Your task to perform on an android device: turn off picture-in-picture Image 0: 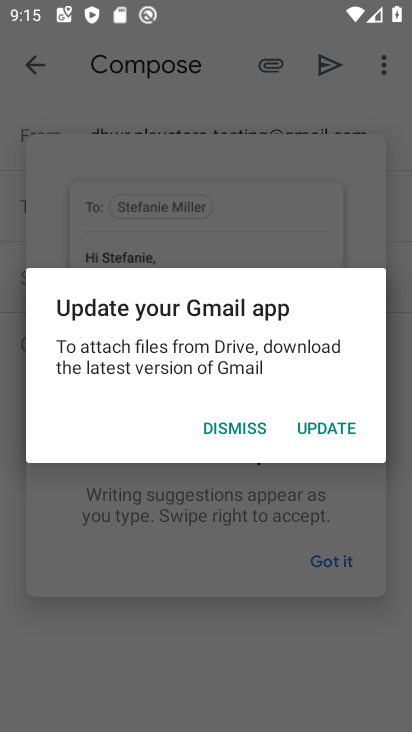
Step 0: press home button
Your task to perform on an android device: turn off picture-in-picture Image 1: 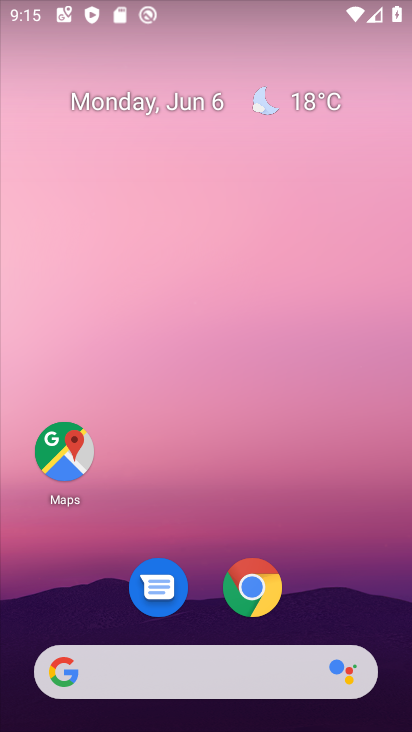
Step 1: click (255, 596)
Your task to perform on an android device: turn off picture-in-picture Image 2: 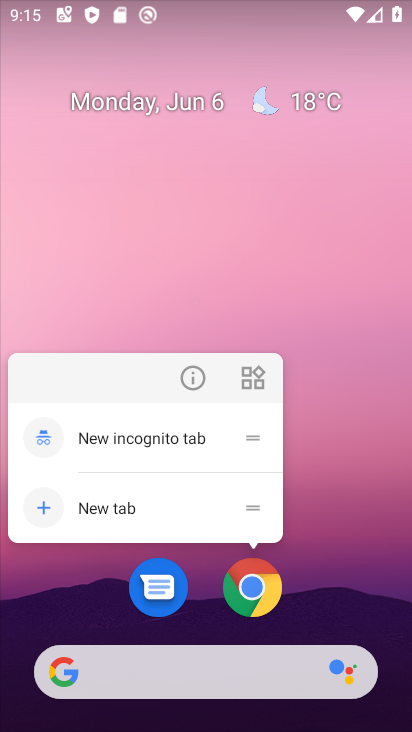
Step 2: click (195, 371)
Your task to perform on an android device: turn off picture-in-picture Image 3: 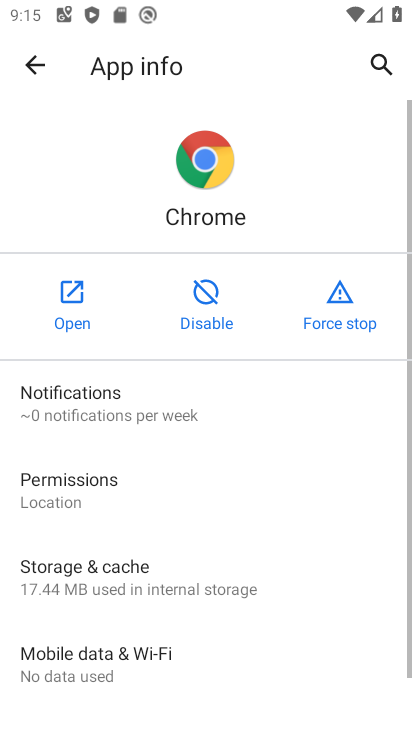
Step 3: drag from (189, 646) to (226, 97)
Your task to perform on an android device: turn off picture-in-picture Image 4: 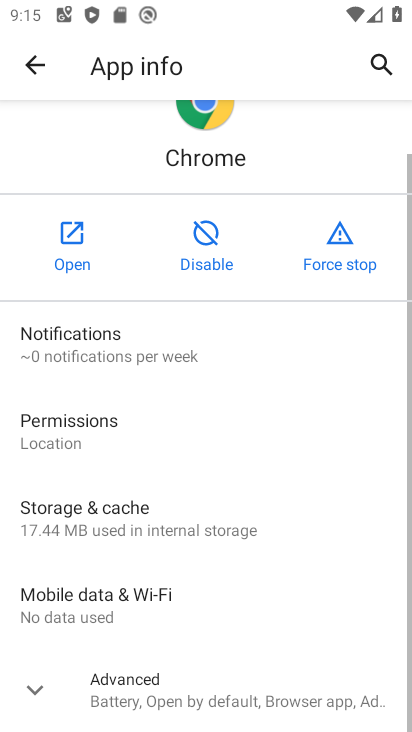
Step 4: click (151, 702)
Your task to perform on an android device: turn off picture-in-picture Image 5: 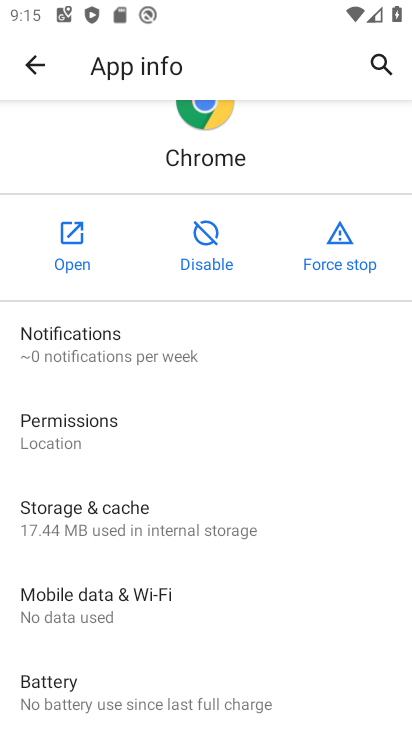
Step 5: drag from (154, 676) to (171, 333)
Your task to perform on an android device: turn off picture-in-picture Image 6: 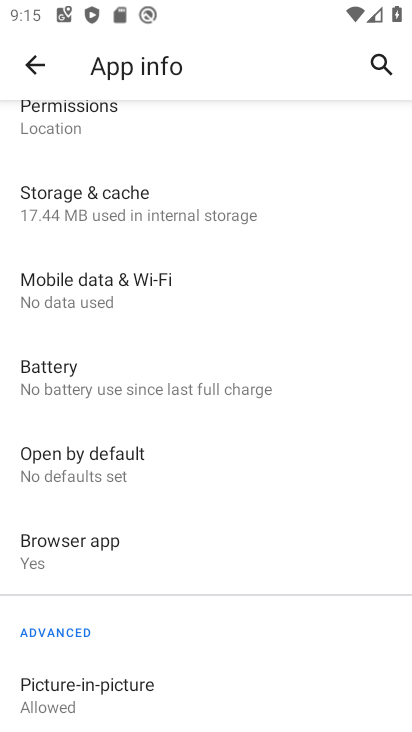
Step 6: click (121, 674)
Your task to perform on an android device: turn off picture-in-picture Image 7: 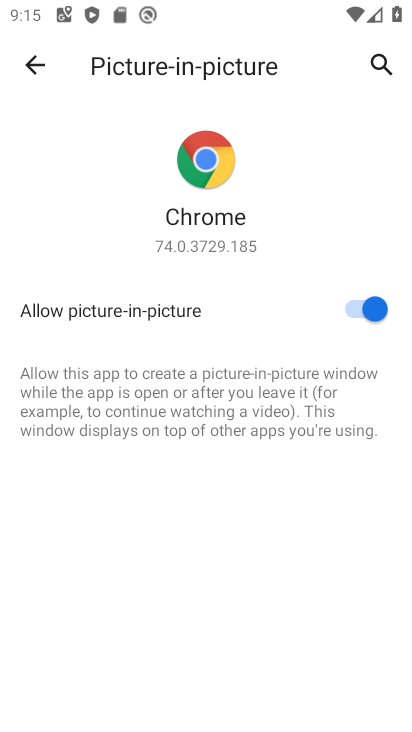
Step 7: click (371, 309)
Your task to perform on an android device: turn off picture-in-picture Image 8: 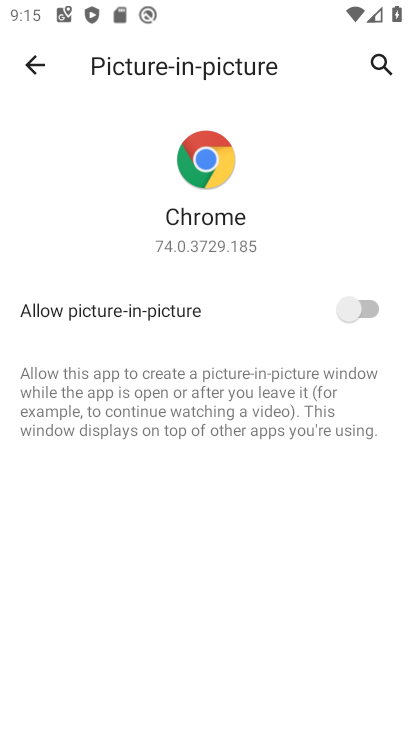
Step 8: task complete